Your task to perform on an android device: Show me the alarms in the clock app Image 0: 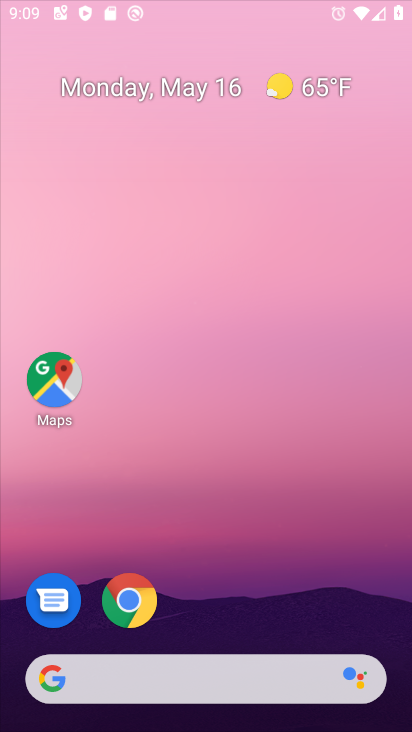
Step 0: click (252, 336)
Your task to perform on an android device: Show me the alarms in the clock app Image 1: 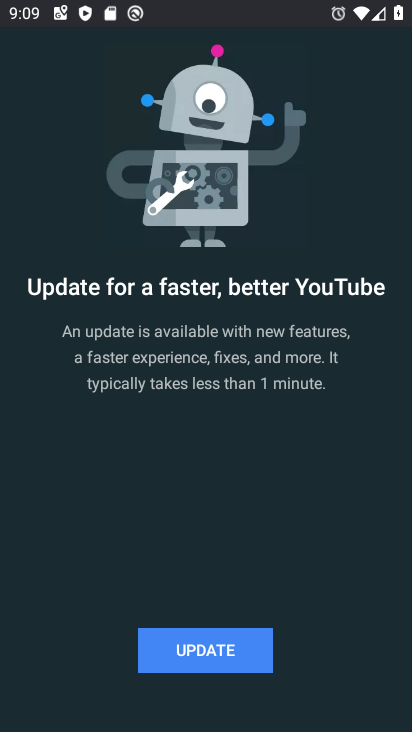
Step 1: drag from (246, 695) to (318, 482)
Your task to perform on an android device: Show me the alarms in the clock app Image 2: 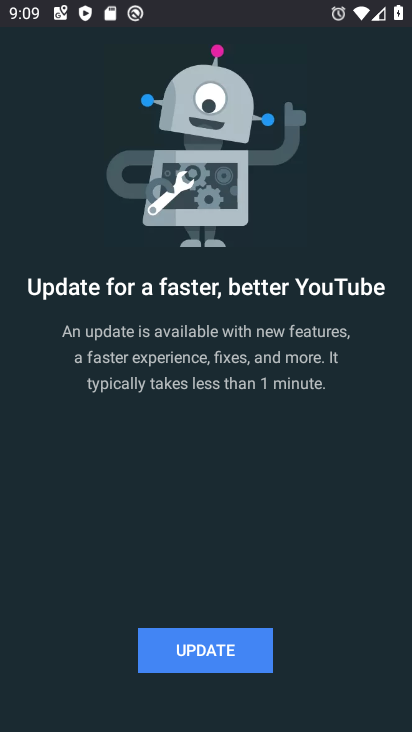
Step 2: click (233, 431)
Your task to perform on an android device: Show me the alarms in the clock app Image 3: 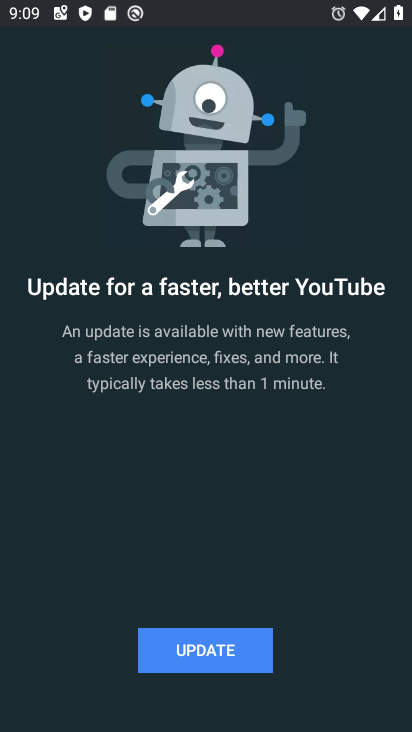
Step 3: click (239, 373)
Your task to perform on an android device: Show me the alarms in the clock app Image 4: 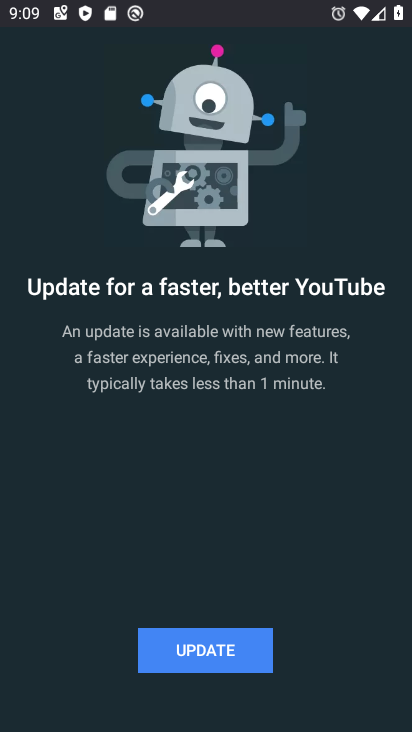
Step 4: click (210, 661)
Your task to perform on an android device: Show me the alarms in the clock app Image 5: 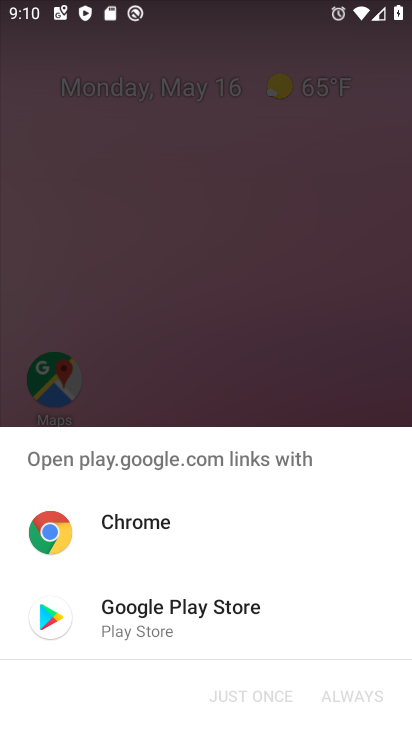
Step 5: press home button
Your task to perform on an android device: Show me the alarms in the clock app Image 6: 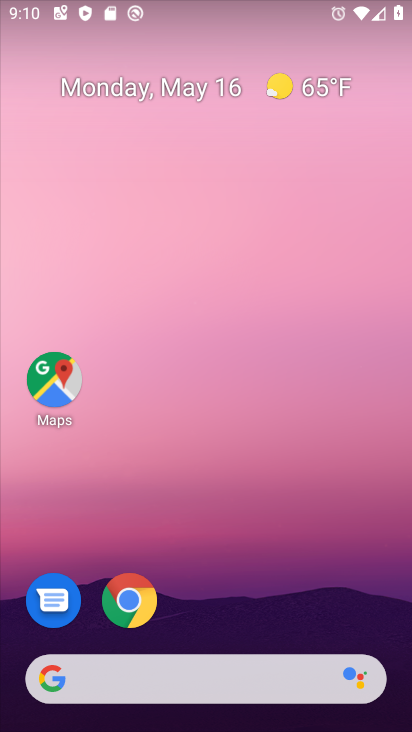
Step 6: drag from (223, 590) to (397, 2)
Your task to perform on an android device: Show me the alarms in the clock app Image 7: 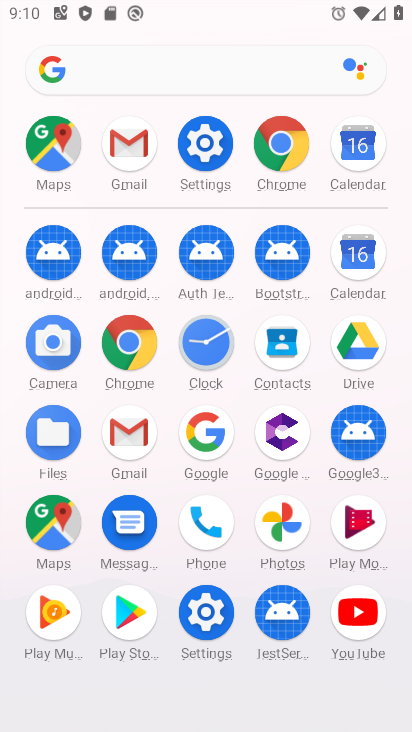
Step 7: click (199, 337)
Your task to perform on an android device: Show me the alarms in the clock app Image 8: 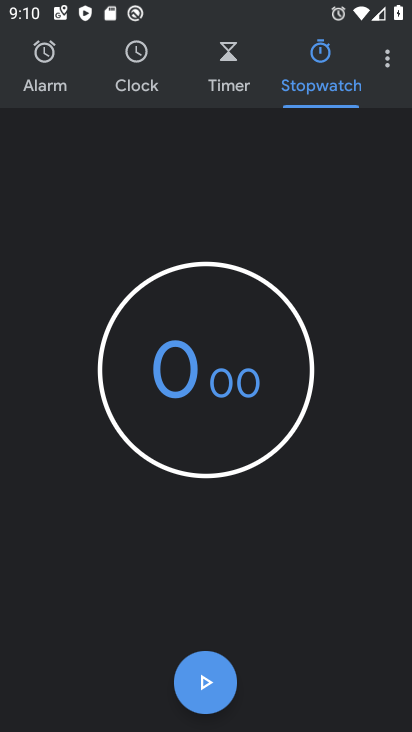
Step 8: click (141, 79)
Your task to perform on an android device: Show me the alarms in the clock app Image 9: 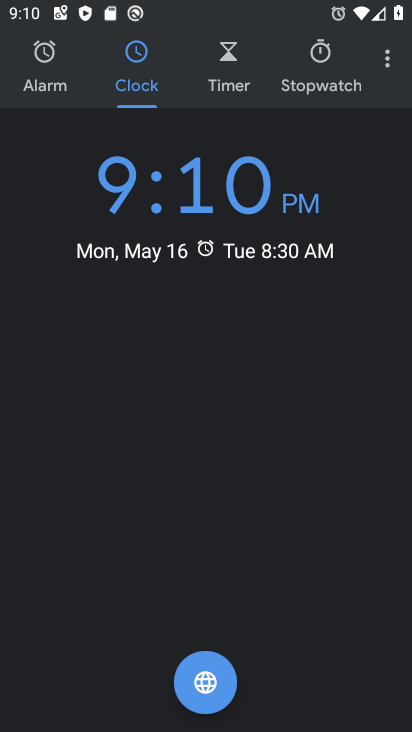
Step 9: click (134, 65)
Your task to perform on an android device: Show me the alarms in the clock app Image 10: 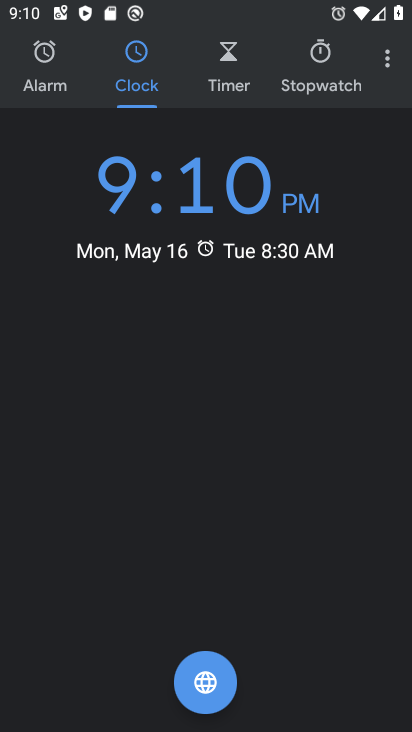
Step 10: click (76, 82)
Your task to perform on an android device: Show me the alarms in the clock app Image 11: 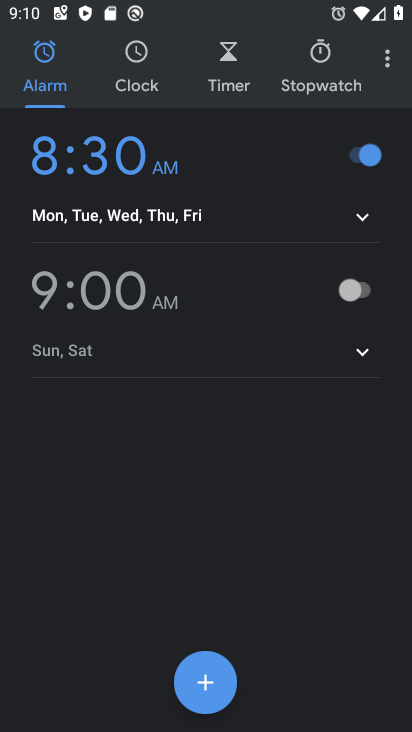
Step 11: task complete